Your task to perform on an android device: Search for hotels in Miami Image 0: 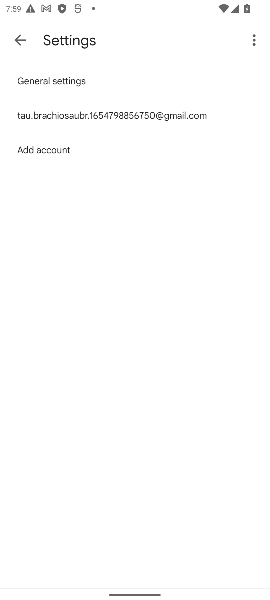
Step 0: press home button
Your task to perform on an android device: Search for hotels in Miami Image 1: 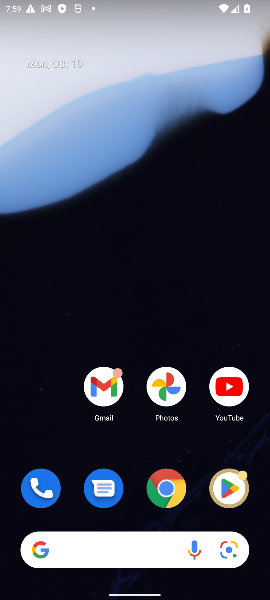
Step 1: drag from (132, 518) to (217, 41)
Your task to perform on an android device: Search for hotels in Miami Image 2: 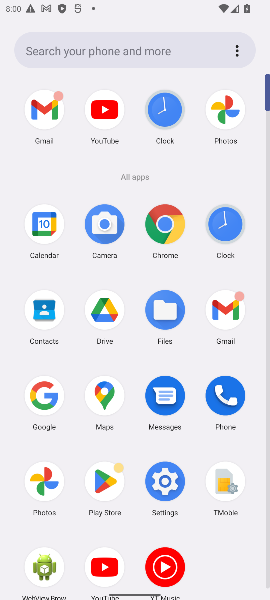
Step 2: click (167, 217)
Your task to perform on an android device: Search for hotels in Miami Image 3: 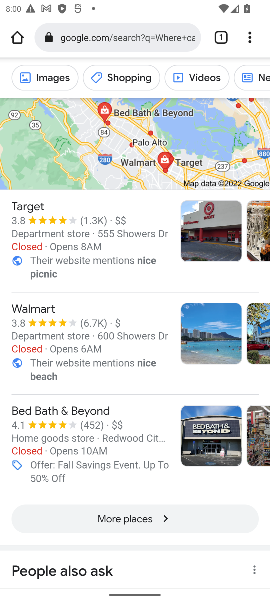
Step 3: click (162, 32)
Your task to perform on an android device: Search for hotels in Miami Image 4: 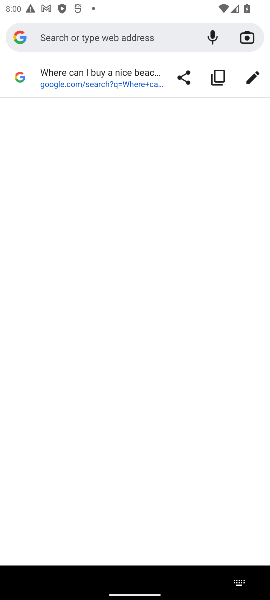
Step 4: type "hotels in Miami"
Your task to perform on an android device: Search for hotels in Miami Image 5: 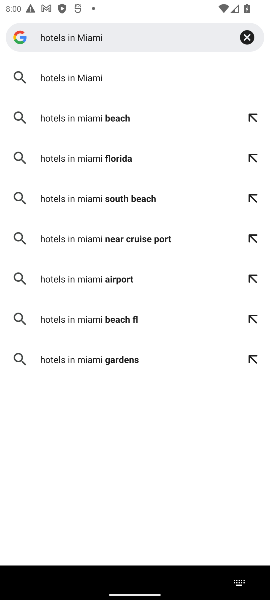
Step 5: press enter
Your task to perform on an android device: Search for hotels in Miami Image 6: 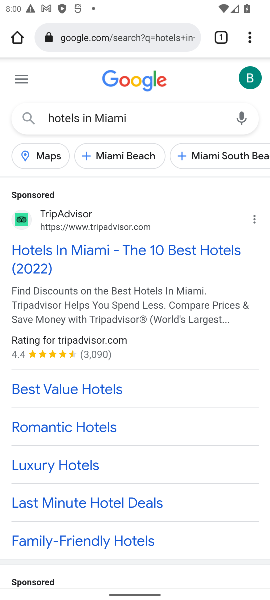
Step 6: drag from (137, 518) to (147, 171)
Your task to perform on an android device: Search for hotels in Miami Image 7: 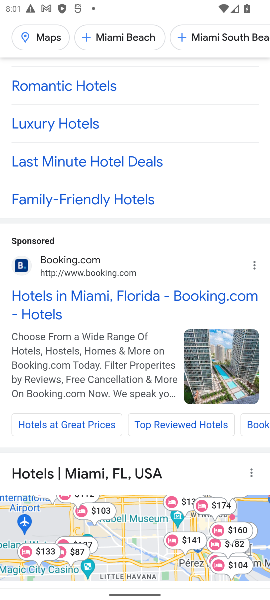
Step 7: click (112, 292)
Your task to perform on an android device: Search for hotels in Miami Image 8: 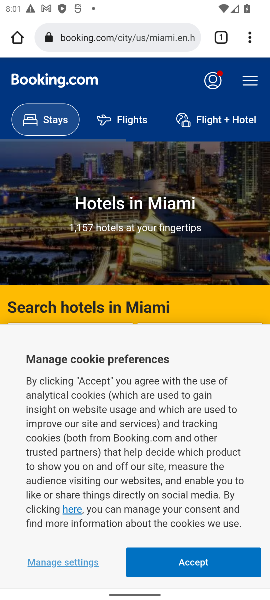
Step 8: task complete